Your task to perform on an android device: Clear the cart on newegg. Search for "bose soundlink mini" on newegg, select the first entry, and add it to the cart. Image 0: 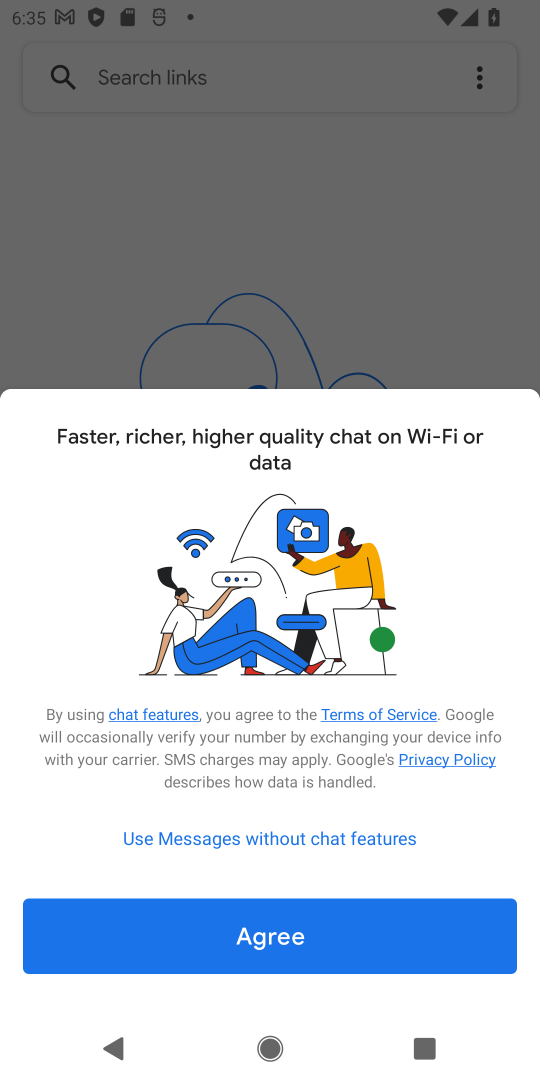
Step 0: press home button
Your task to perform on an android device: Clear the cart on newegg. Search for "bose soundlink mini" on newegg, select the first entry, and add it to the cart. Image 1: 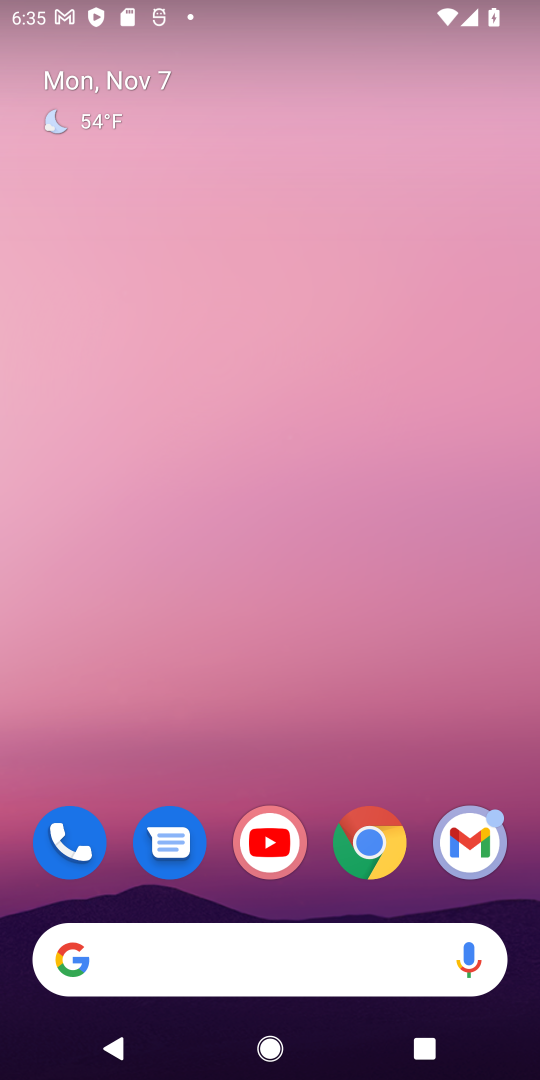
Step 1: click (356, 849)
Your task to perform on an android device: Clear the cart on newegg. Search for "bose soundlink mini" on newegg, select the first entry, and add it to the cart. Image 2: 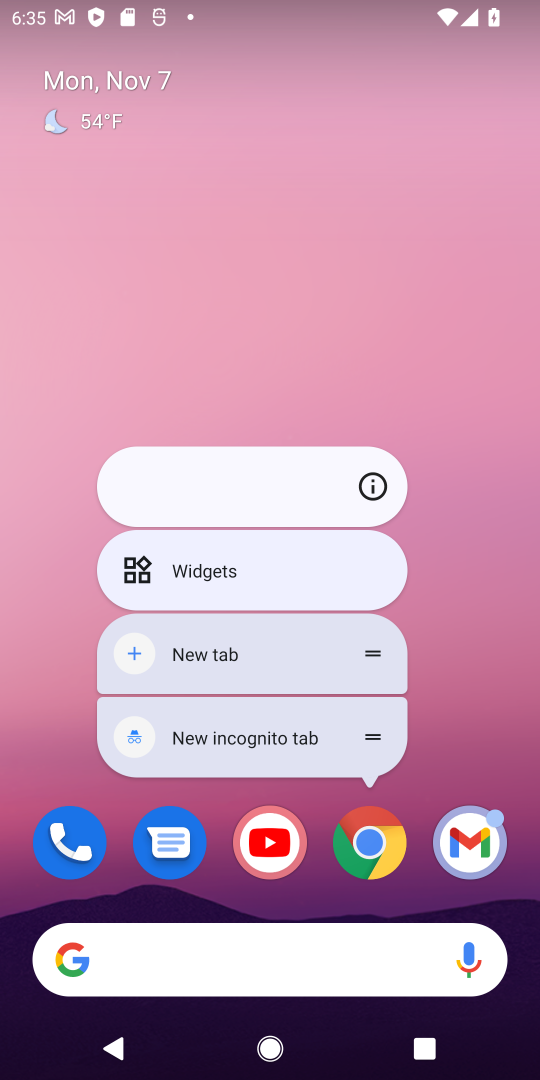
Step 2: click (380, 840)
Your task to perform on an android device: Clear the cart on newegg. Search for "bose soundlink mini" on newegg, select the first entry, and add it to the cart. Image 3: 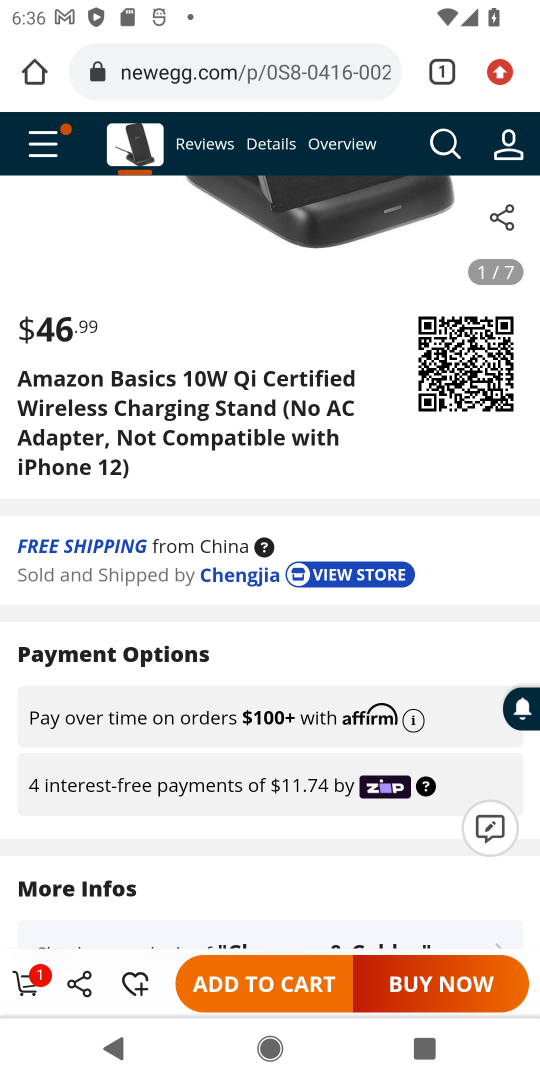
Step 3: drag from (344, 273) to (298, 861)
Your task to perform on an android device: Clear the cart on newegg. Search for "bose soundlink mini" on newegg, select the first entry, and add it to the cart. Image 4: 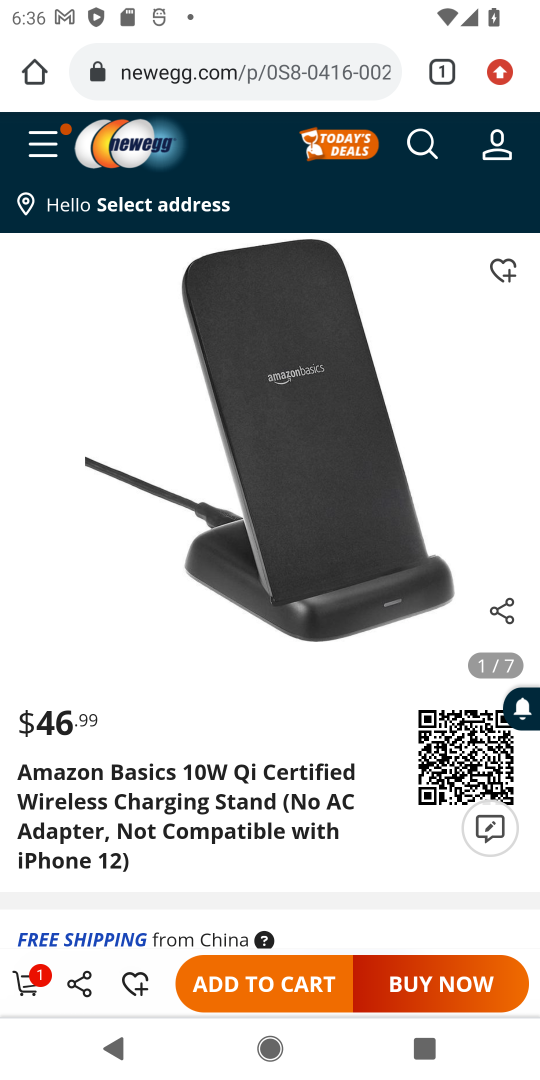
Step 4: click (26, 977)
Your task to perform on an android device: Clear the cart on newegg. Search for "bose soundlink mini" on newegg, select the first entry, and add it to the cart. Image 5: 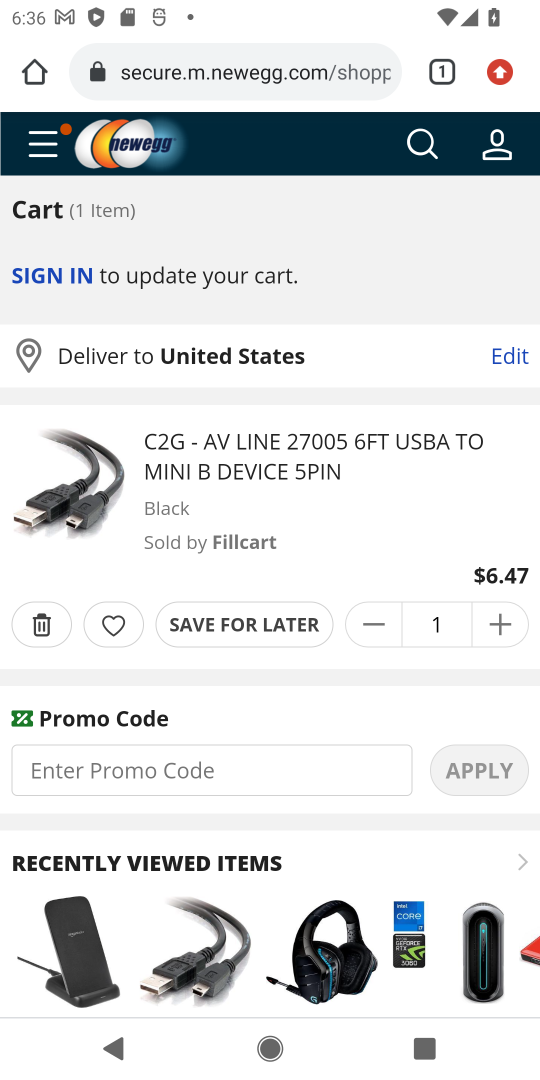
Step 5: click (38, 622)
Your task to perform on an android device: Clear the cart on newegg. Search for "bose soundlink mini" on newegg, select the first entry, and add it to the cart. Image 6: 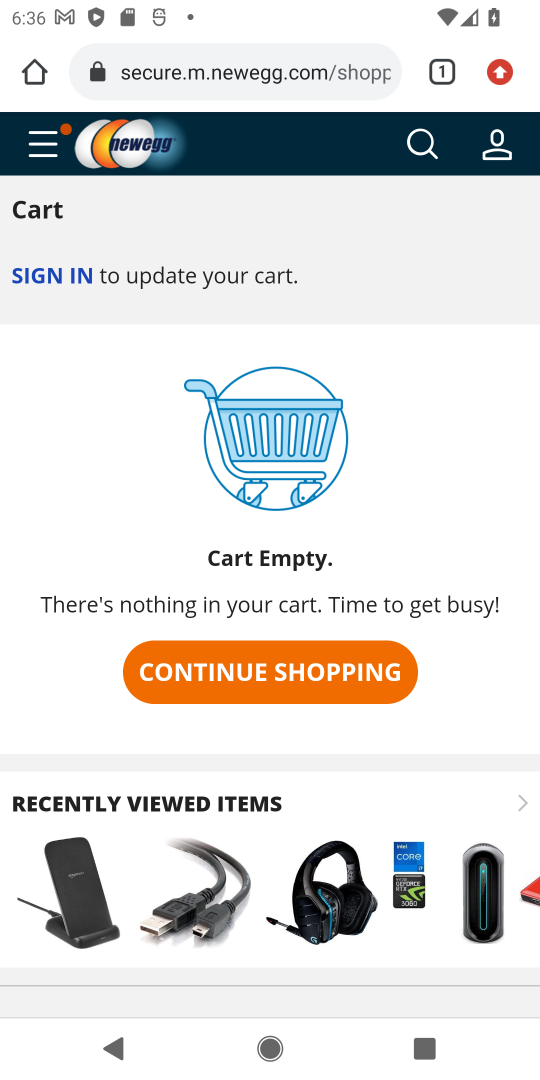
Step 6: click (416, 137)
Your task to perform on an android device: Clear the cart on newegg. Search for "bose soundlink mini" on newegg, select the first entry, and add it to the cart. Image 7: 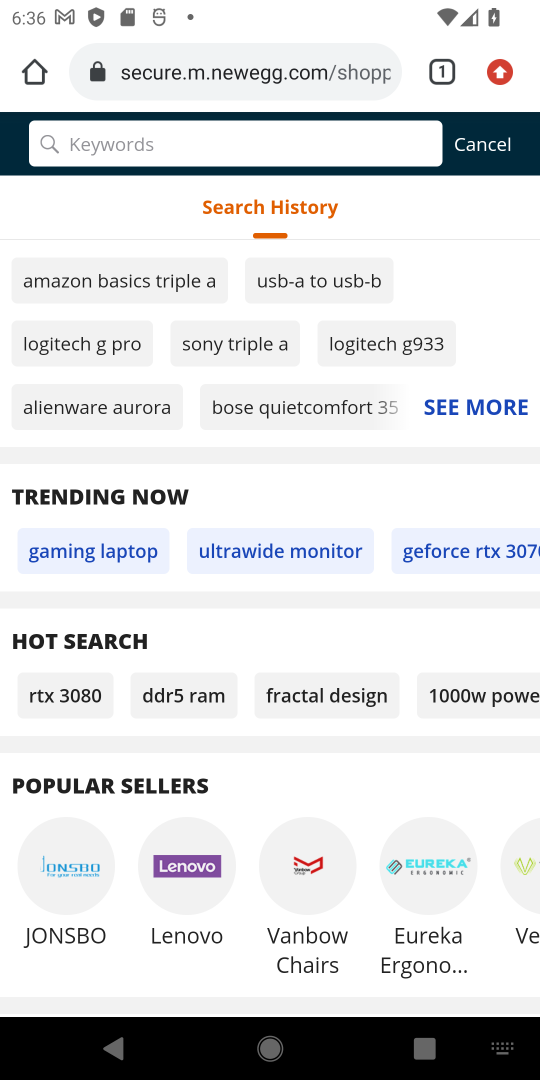
Step 7: click (248, 147)
Your task to perform on an android device: Clear the cart on newegg. Search for "bose soundlink mini" on newegg, select the first entry, and add it to the cart. Image 8: 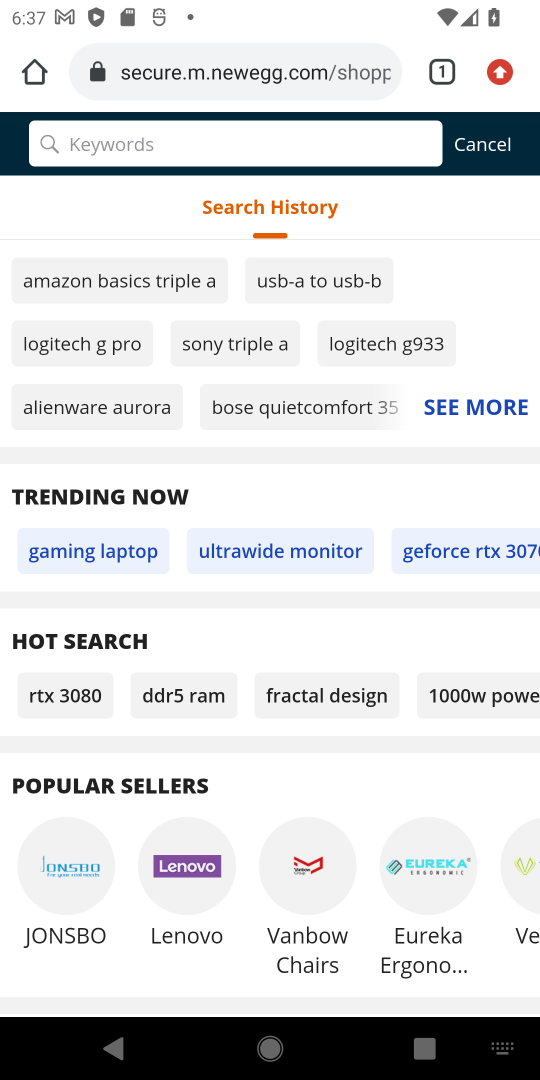
Step 8: type "bose soundlink mini"
Your task to perform on an android device: Clear the cart on newegg. Search for "bose soundlink mini" on newegg, select the first entry, and add it to the cart. Image 9: 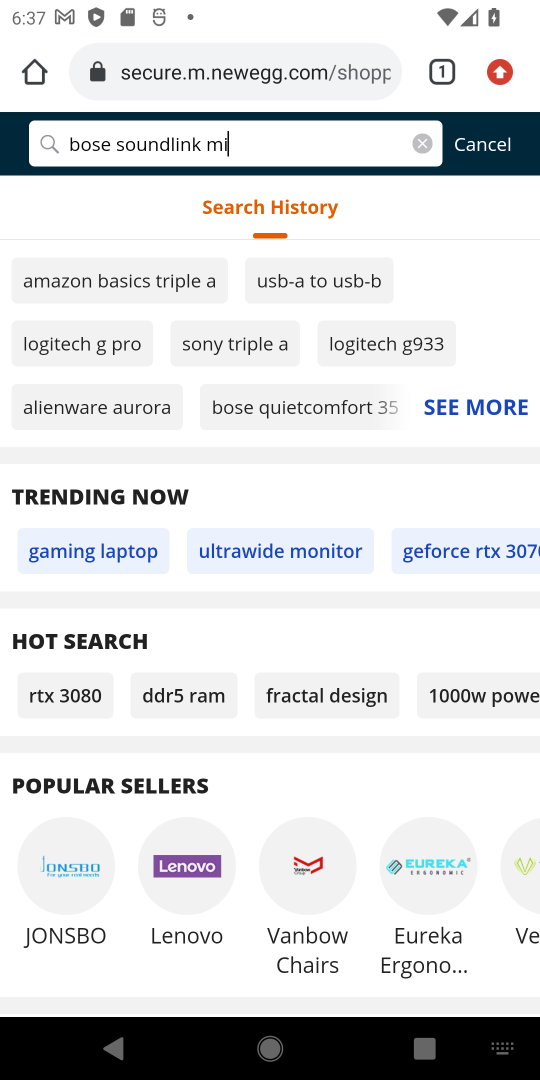
Step 9: press enter
Your task to perform on an android device: Clear the cart on newegg. Search for "bose soundlink mini" on newegg, select the first entry, and add it to the cart. Image 10: 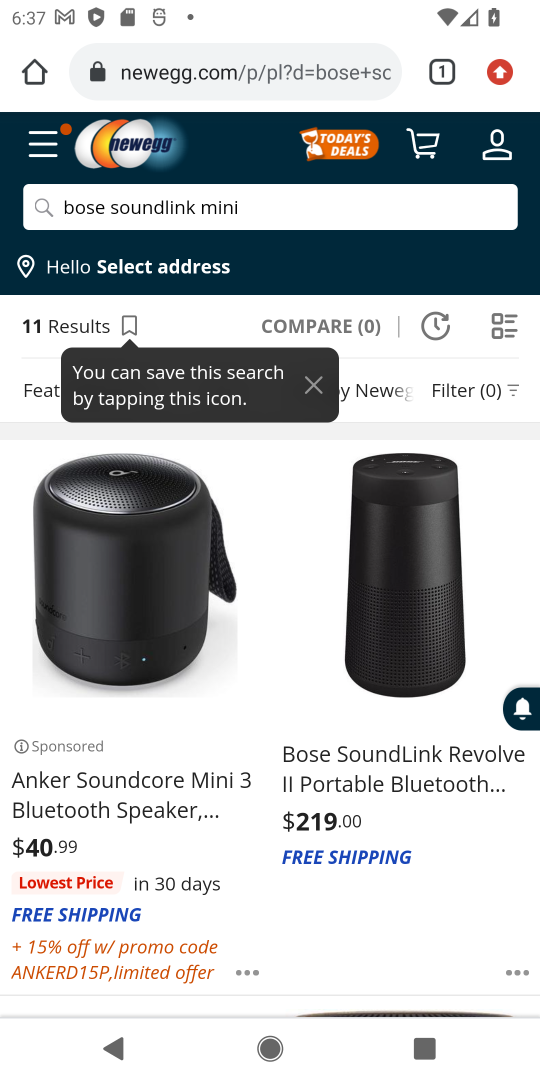
Step 10: task complete